Your task to perform on an android device: Open Wikipedia Image 0: 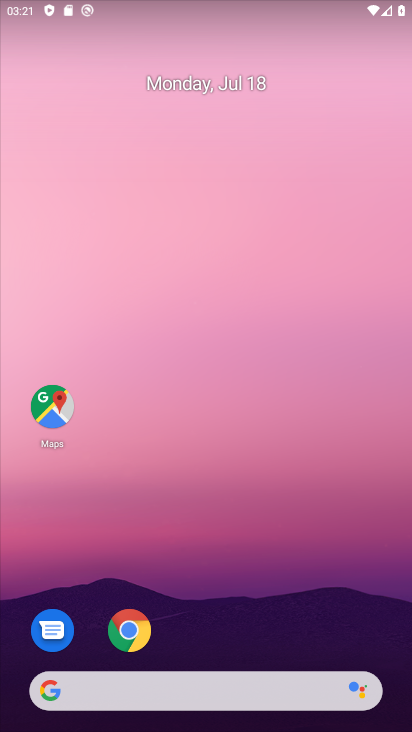
Step 0: drag from (241, 628) to (316, 142)
Your task to perform on an android device: Open Wikipedia Image 1: 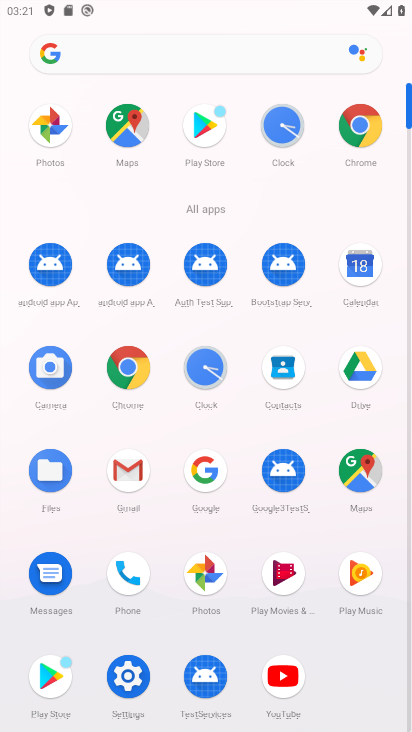
Step 1: click (124, 365)
Your task to perform on an android device: Open Wikipedia Image 2: 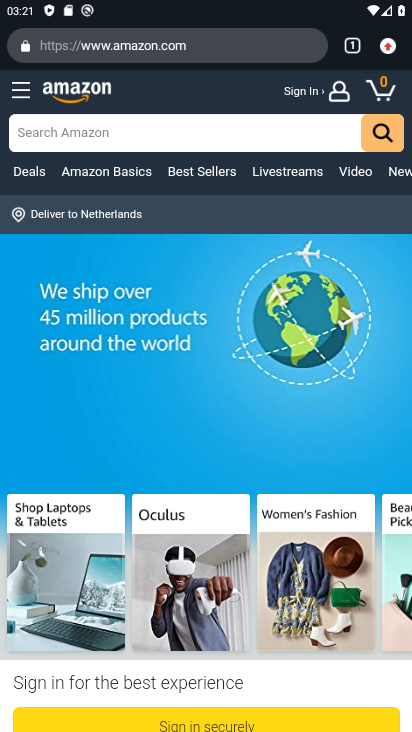
Step 2: drag from (396, 40) to (311, 137)
Your task to perform on an android device: Open Wikipedia Image 3: 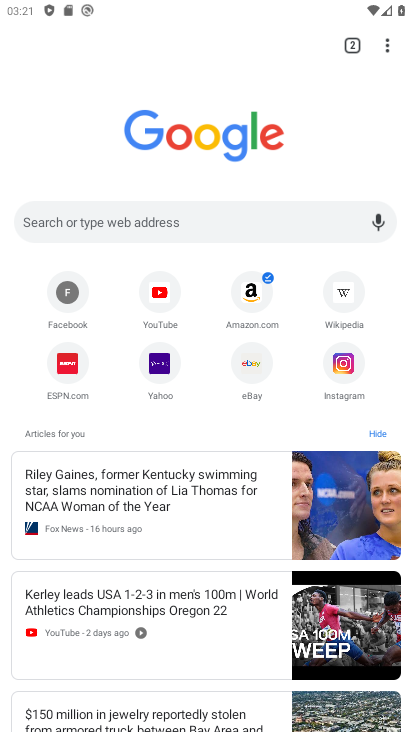
Step 3: click (343, 292)
Your task to perform on an android device: Open Wikipedia Image 4: 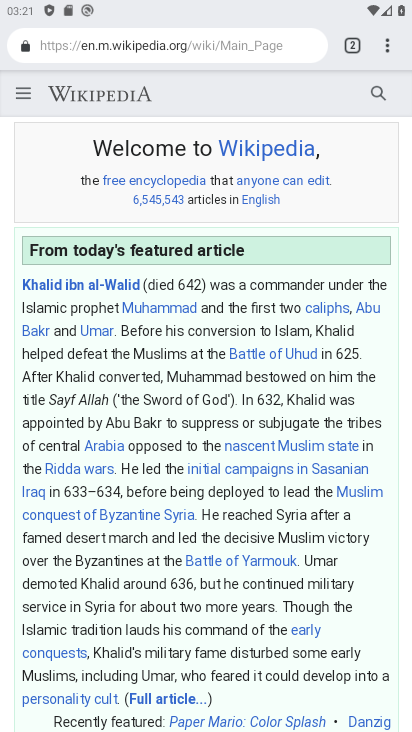
Step 4: task complete